Your task to perform on an android device: Go to sound settings Image 0: 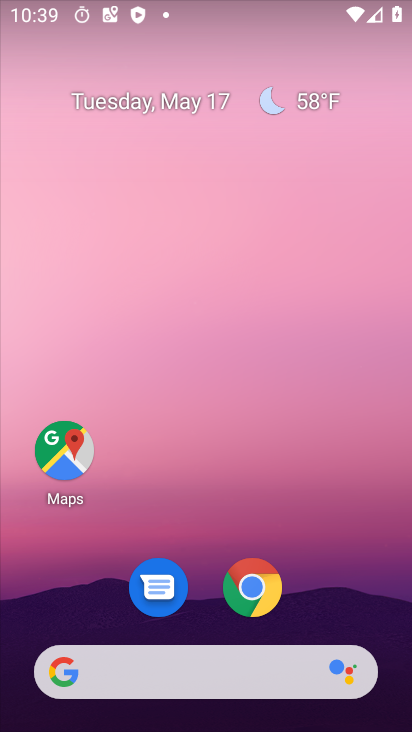
Step 0: drag from (335, 592) to (198, 46)
Your task to perform on an android device: Go to sound settings Image 1: 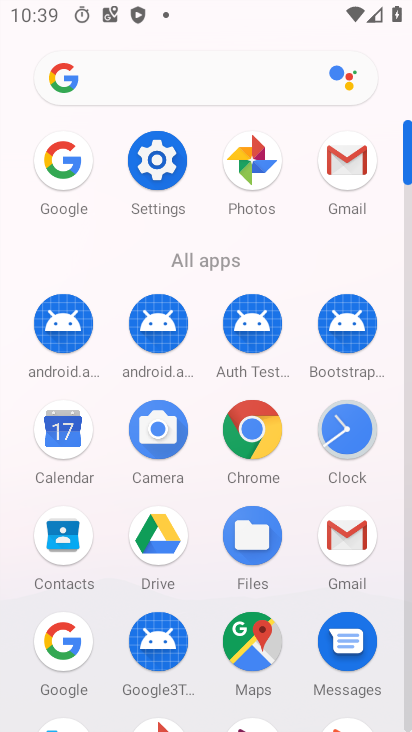
Step 1: click (155, 160)
Your task to perform on an android device: Go to sound settings Image 2: 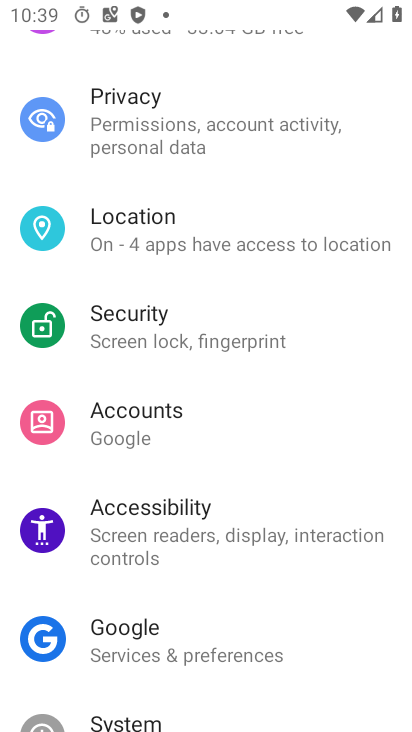
Step 2: drag from (219, 292) to (208, 377)
Your task to perform on an android device: Go to sound settings Image 3: 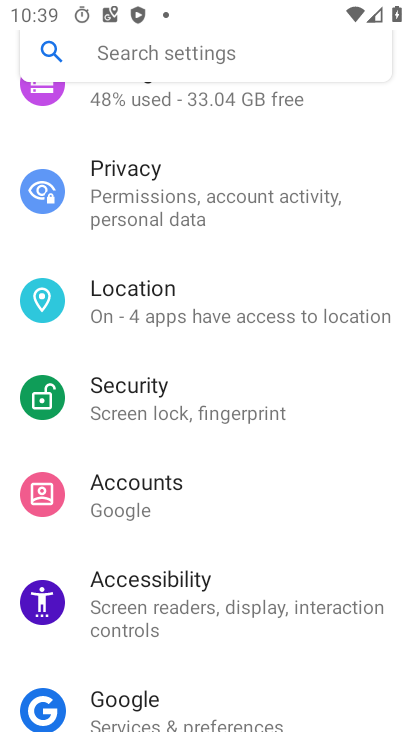
Step 3: drag from (164, 250) to (191, 350)
Your task to perform on an android device: Go to sound settings Image 4: 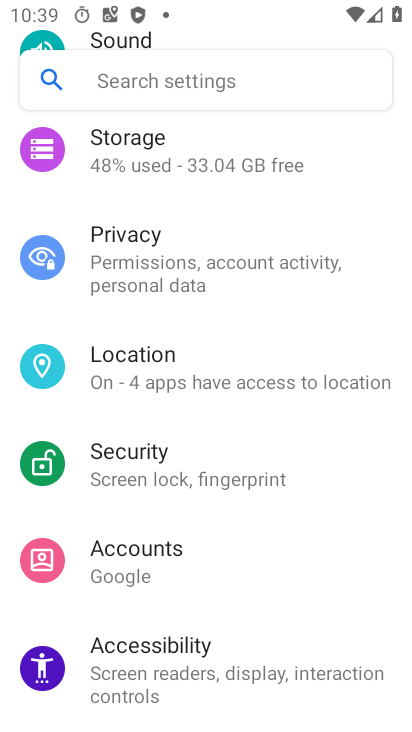
Step 4: drag from (151, 207) to (197, 327)
Your task to perform on an android device: Go to sound settings Image 5: 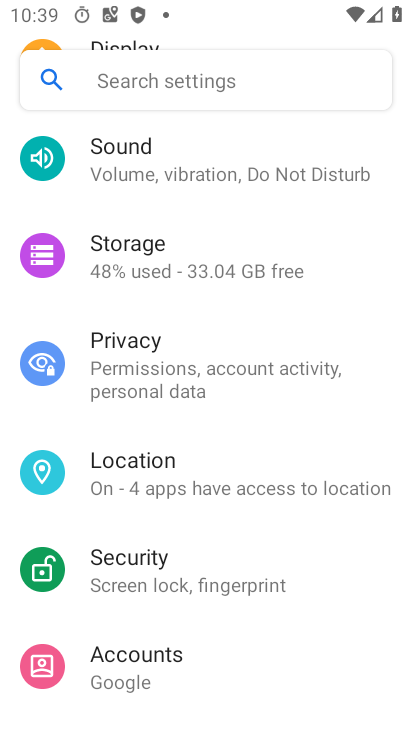
Step 5: drag from (168, 221) to (220, 355)
Your task to perform on an android device: Go to sound settings Image 6: 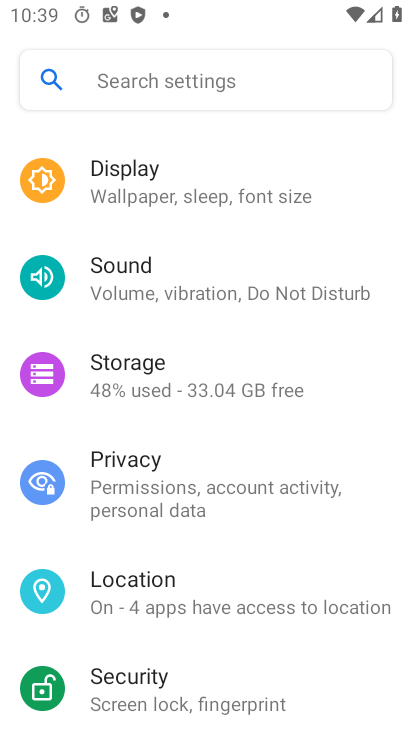
Step 6: click (141, 275)
Your task to perform on an android device: Go to sound settings Image 7: 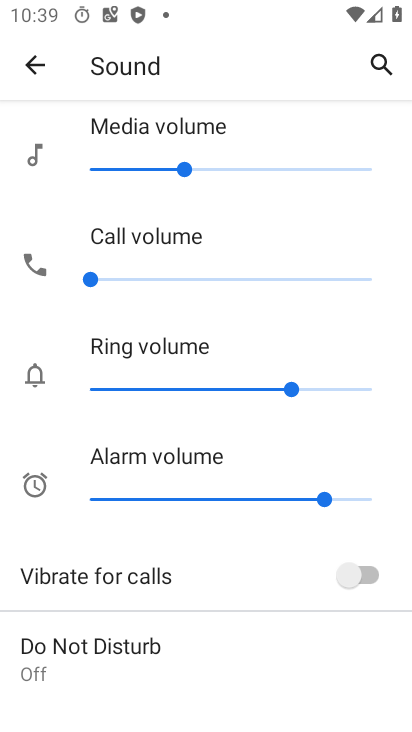
Step 7: task complete